Your task to perform on an android device: open app "Spotify: Music and Podcasts" (install if not already installed) and go to login screen Image 0: 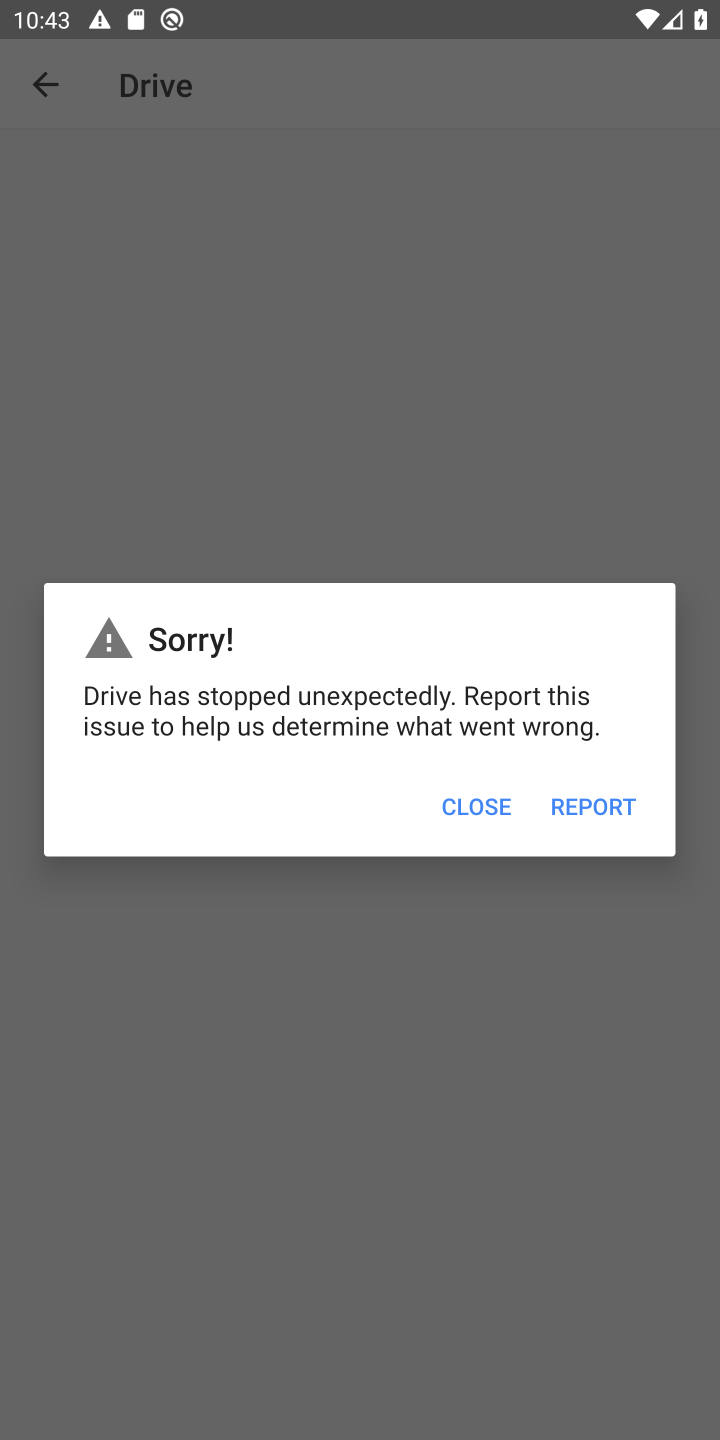
Step 0: press home button
Your task to perform on an android device: open app "Spotify: Music and Podcasts" (install if not already installed) and go to login screen Image 1: 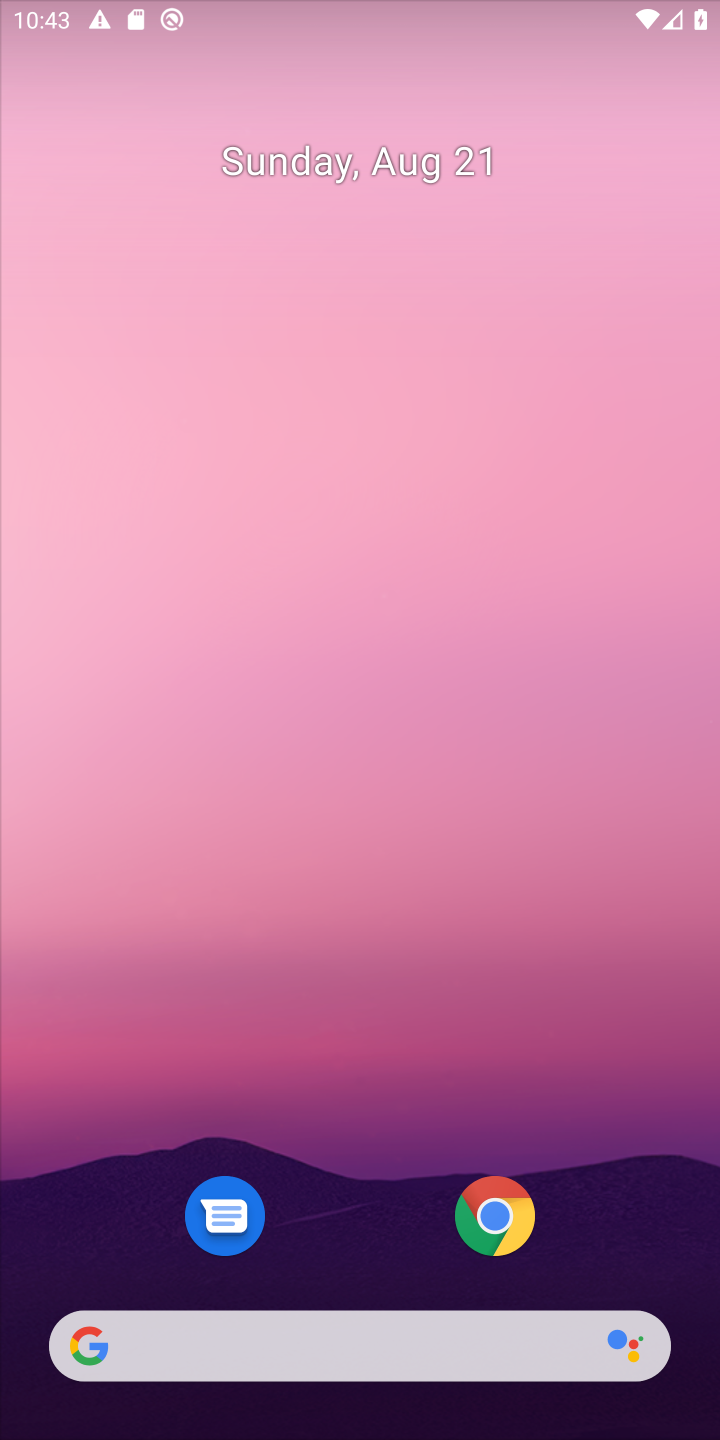
Step 1: drag from (170, 1350) to (718, 129)
Your task to perform on an android device: open app "Spotify: Music and Podcasts" (install if not already installed) and go to login screen Image 2: 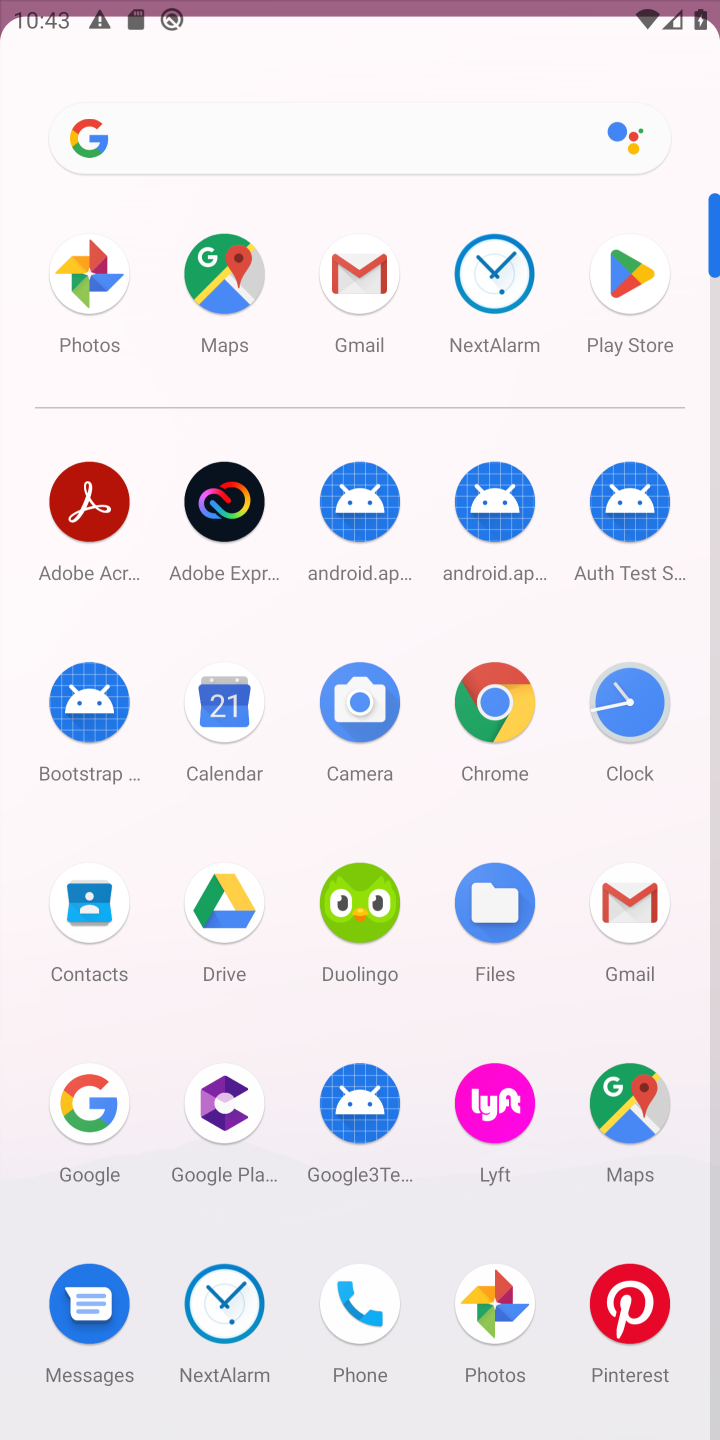
Step 2: click (612, 256)
Your task to perform on an android device: open app "Spotify: Music and Podcasts" (install if not already installed) and go to login screen Image 3: 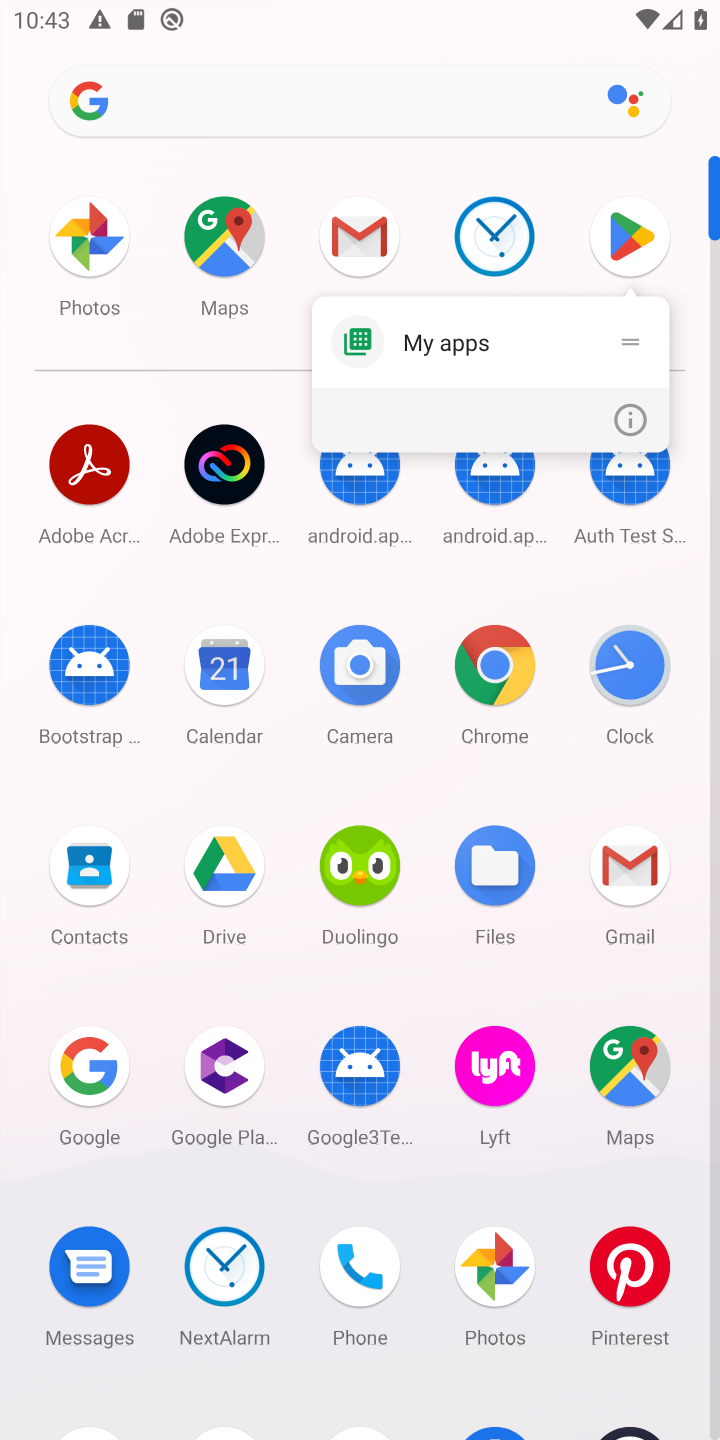
Step 3: click (632, 236)
Your task to perform on an android device: open app "Spotify: Music and Podcasts" (install if not already installed) and go to login screen Image 4: 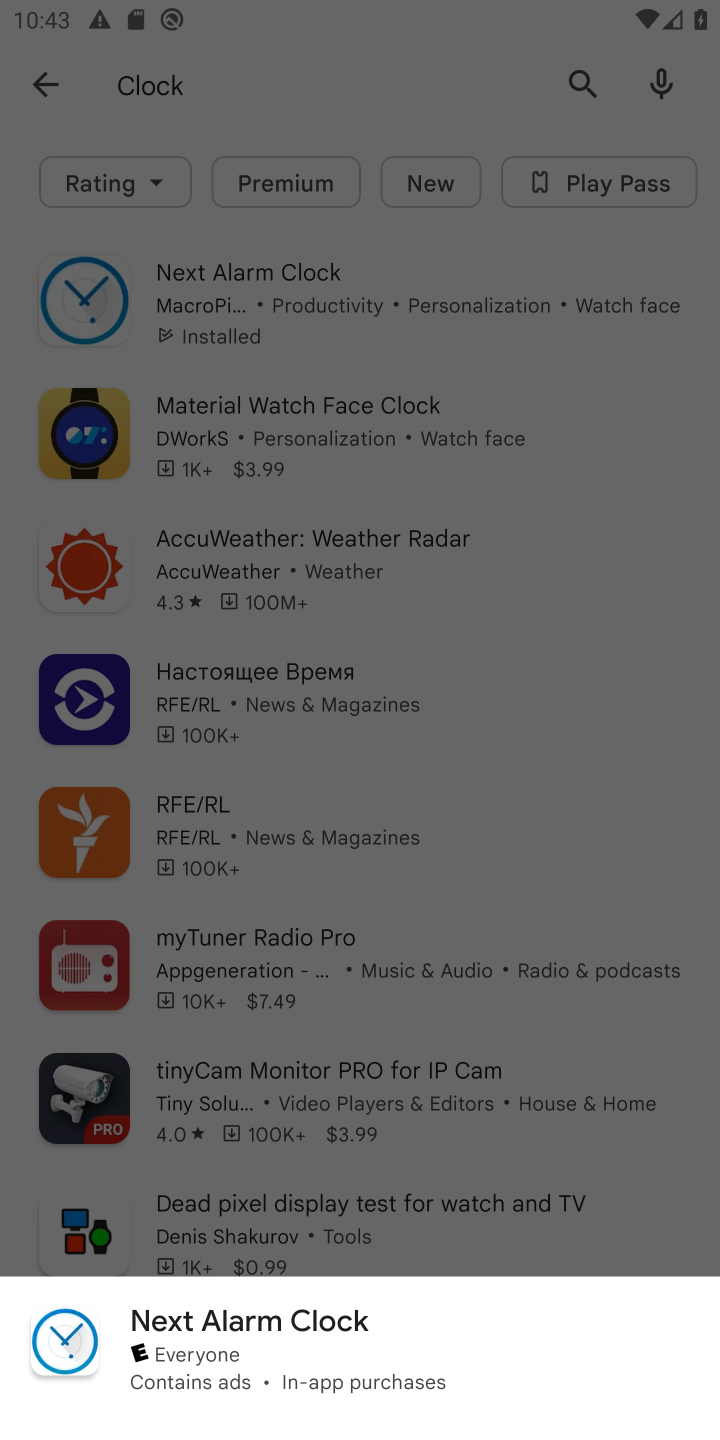
Step 4: press back button
Your task to perform on an android device: open app "Spotify: Music and Podcasts" (install if not already installed) and go to login screen Image 5: 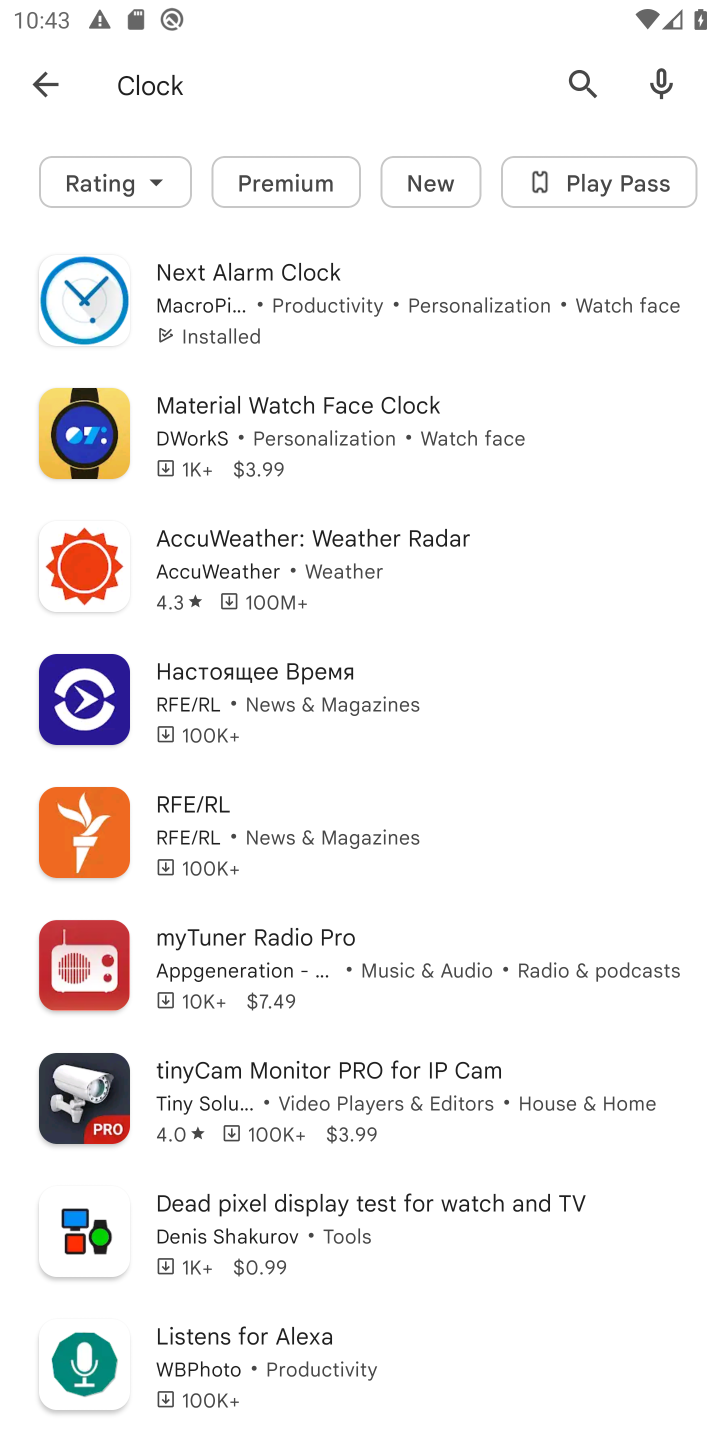
Step 5: click (44, 94)
Your task to perform on an android device: open app "Spotify: Music and Podcasts" (install if not already installed) and go to login screen Image 6: 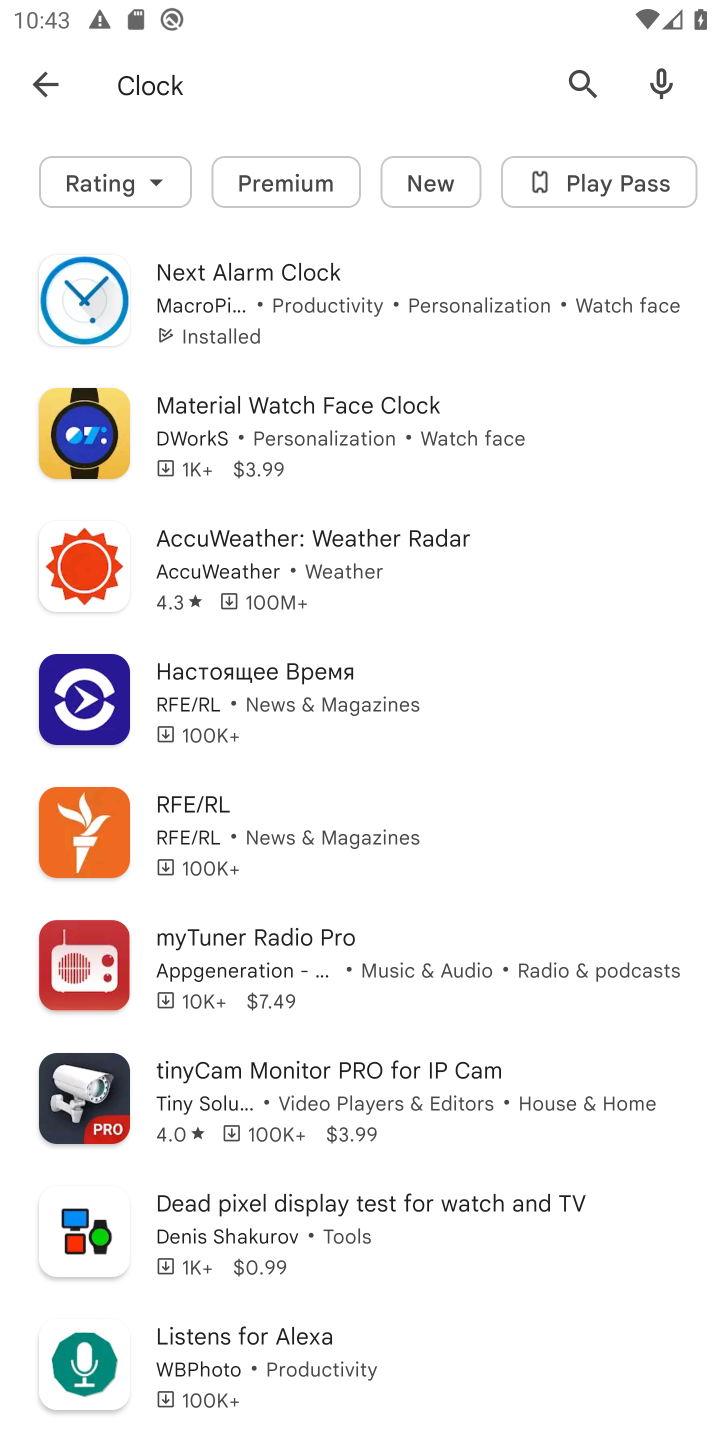
Step 6: click (46, 94)
Your task to perform on an android device: open app "Spotify: Music and Podcasts" (install if not already installed) and go to login screen Image 7: 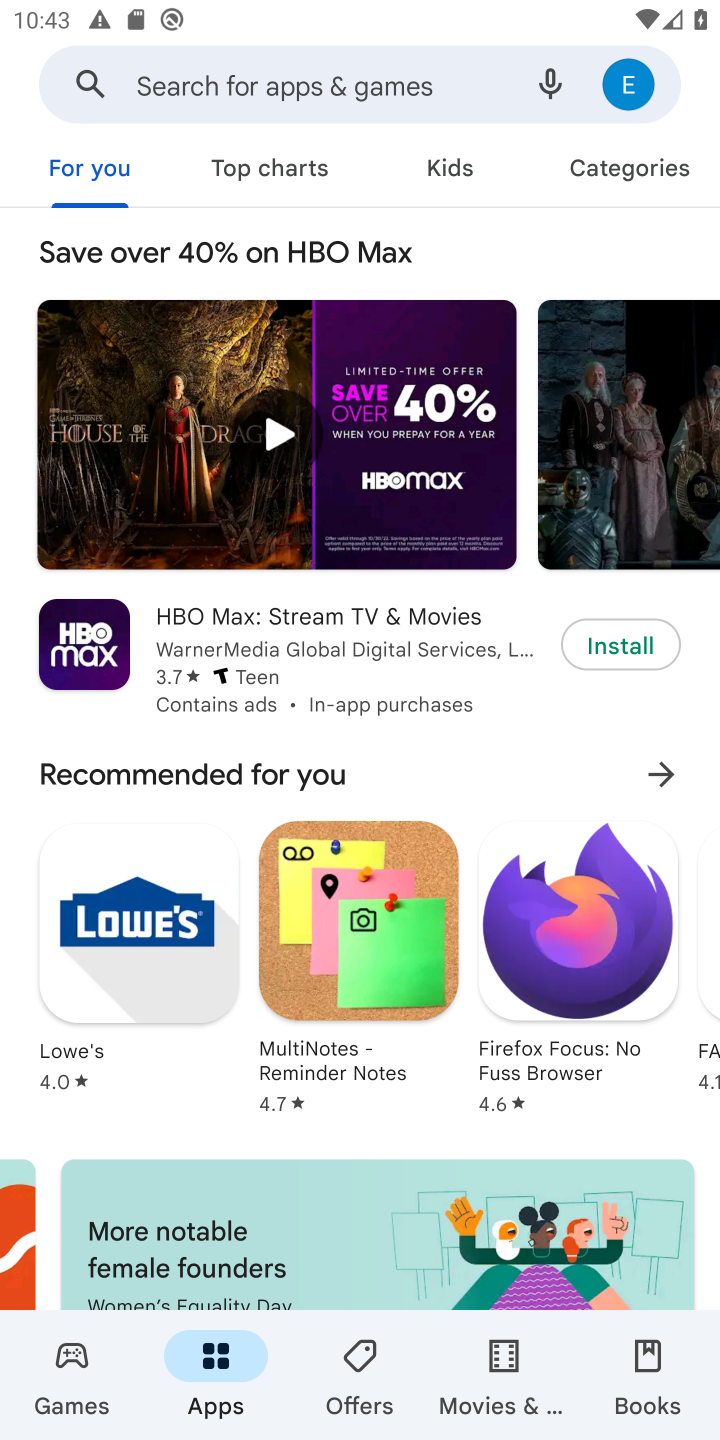
Step 7: click (323, 73)
Your task to perform on an android device: open app "Spotify: Music and Podcasts" (install if not already installed) and go to login screen Image 8: 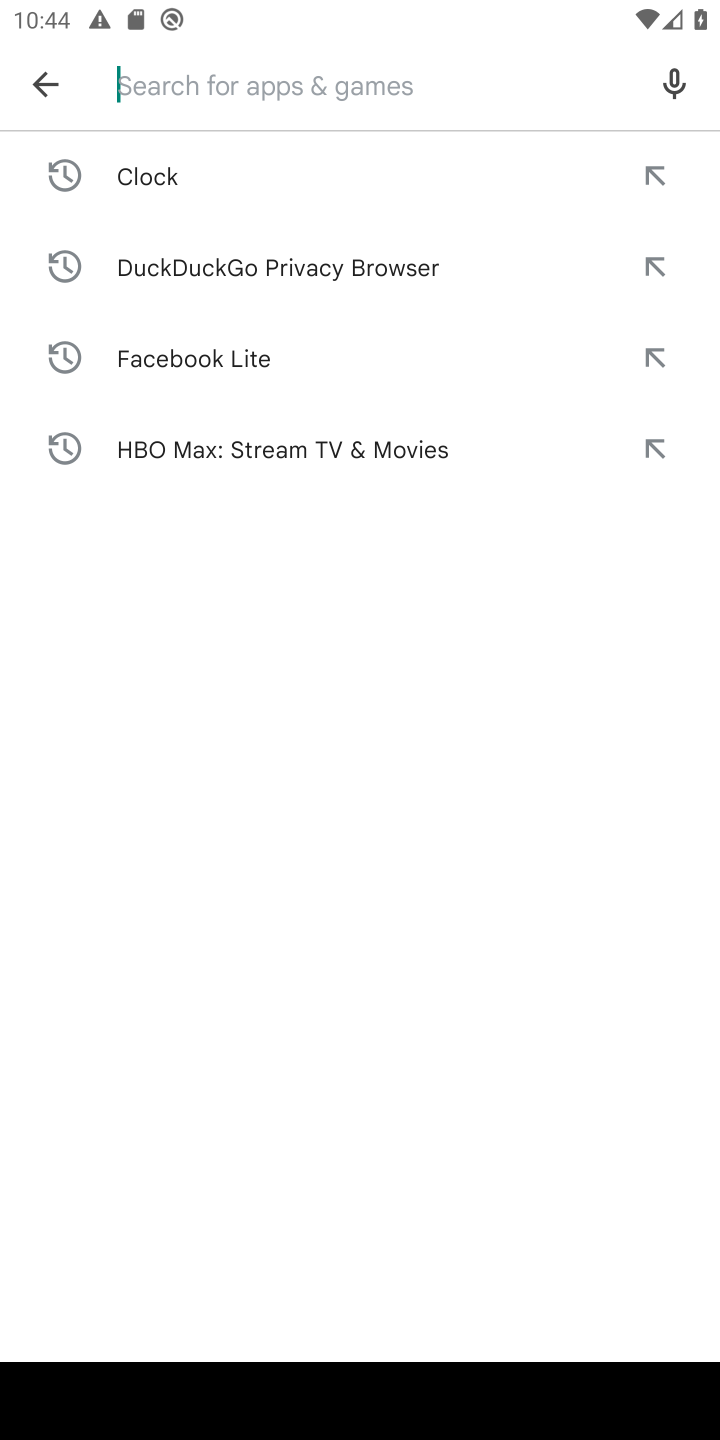
Step 8: type "potify: Music and Podcasts"
Your task to perform on an android device: open app "Spotify: Music and Podcasts" (install if not already installed) and go to login screen Image 9: 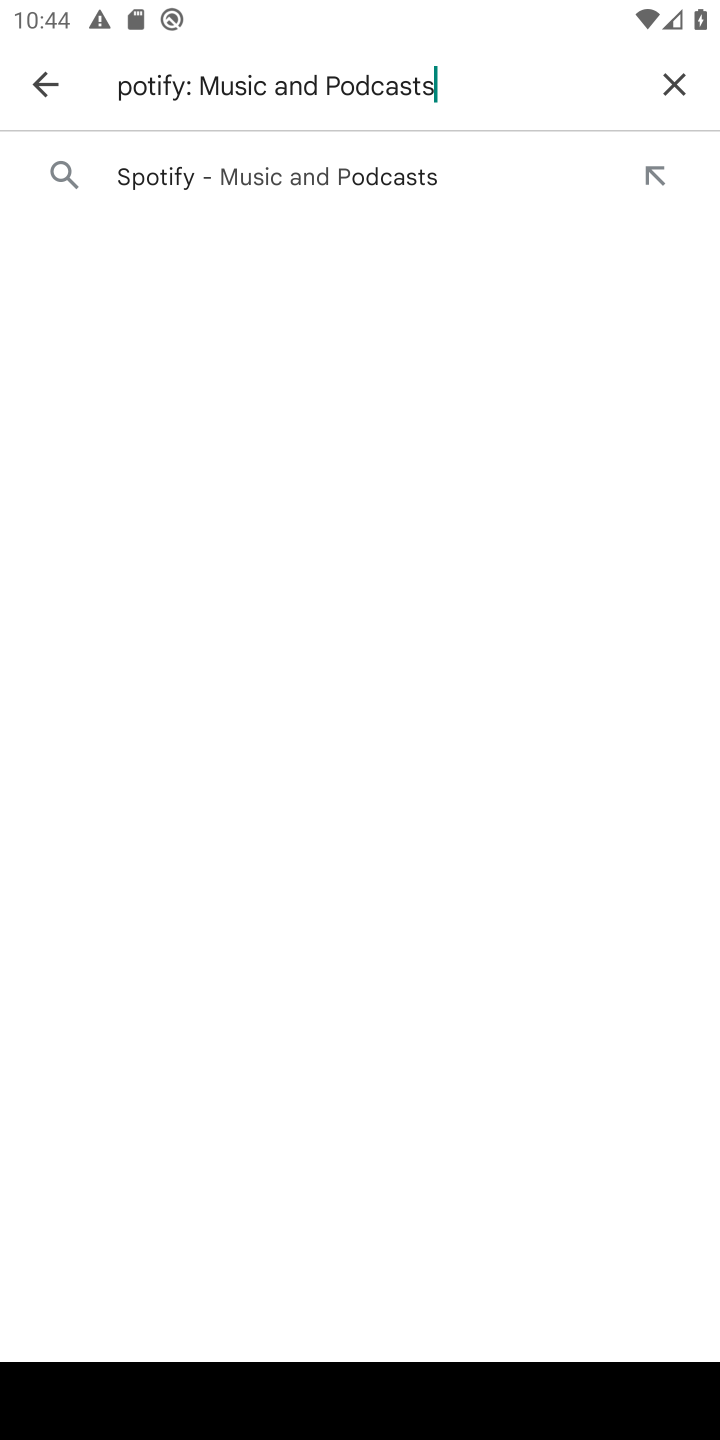
Step 9: press enter
Your task to perform on an android device: open app "Spotify: Music and Podcasts" (install if not already installed) and go to login screen Image 10: 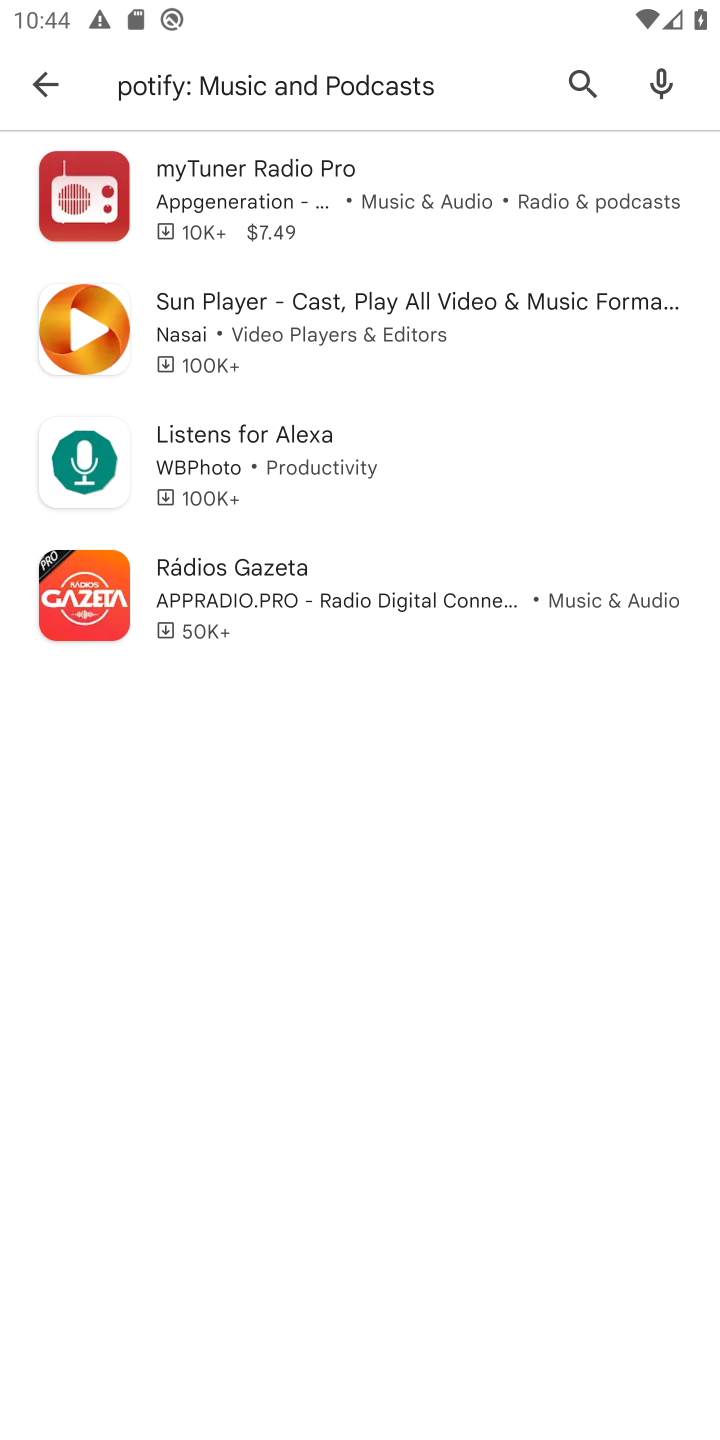
Step 10: press back button
Your task to perform on an android device: open app "Spotify: Music and Podcasts" (install if not already installed) and go to login screen Image 11: 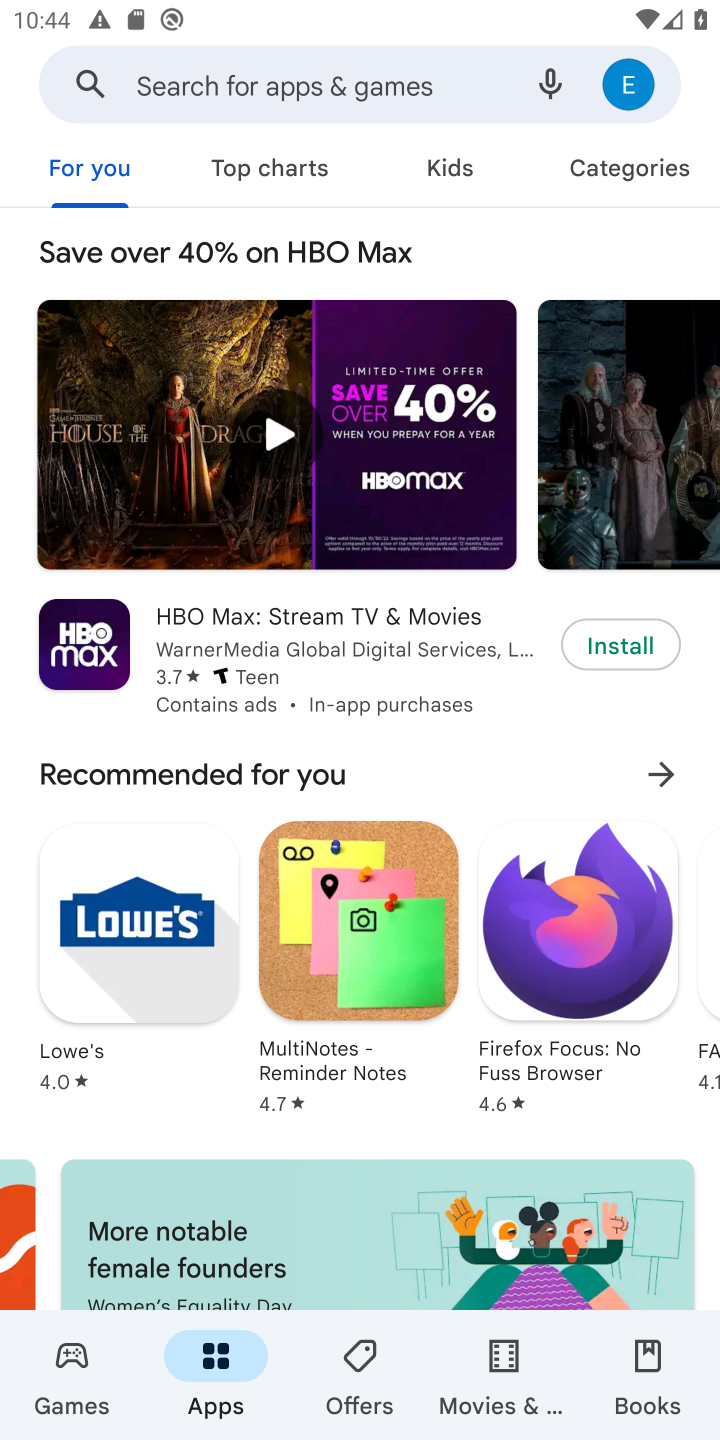
Step 11: click (289, 66)
Your task to perform on an android device: open app "Spotify: Music and Podcasts" (install if not already installed) and go to login screen Image 12: 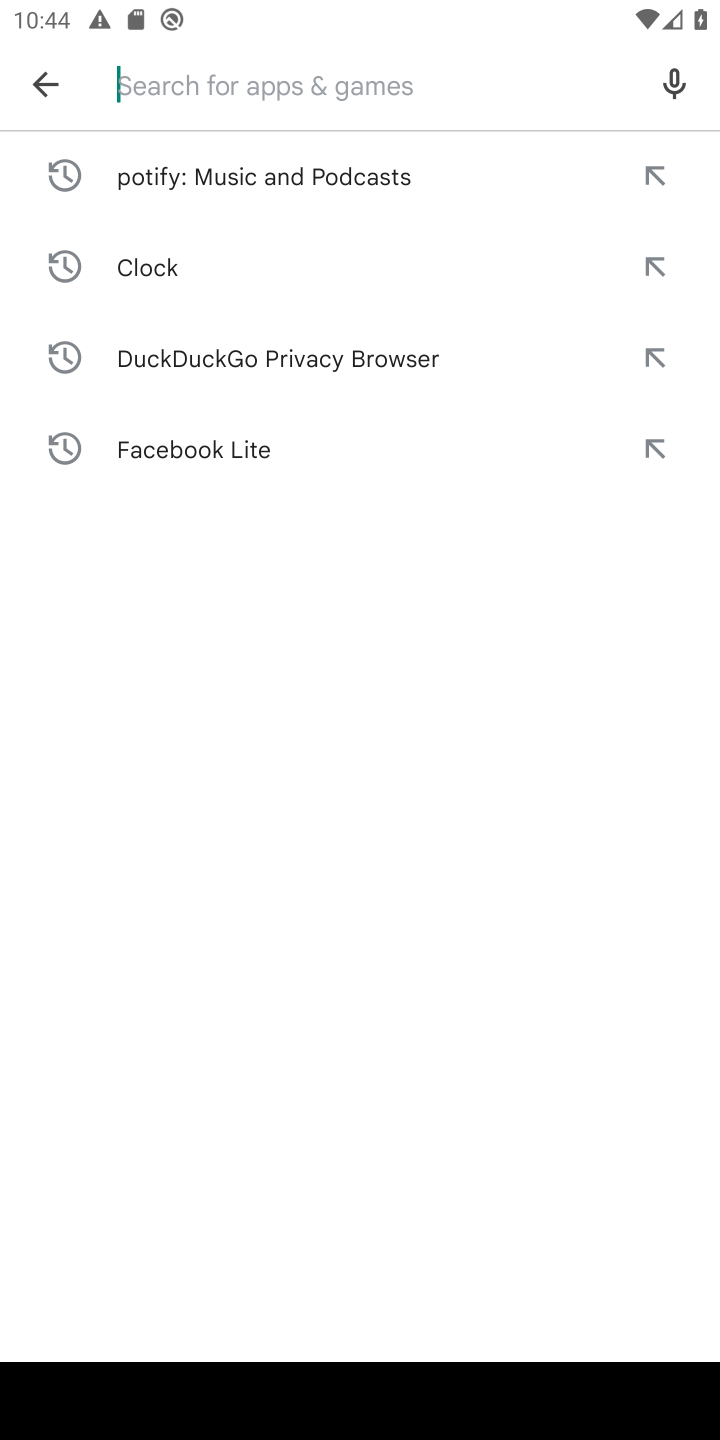
Step 12: type "Spotify: Music and Podcasts"
Your task to perform on an android device: open app "Spotify: Music and Podcasts" (install if not already installed) and go to login screen Image 13: 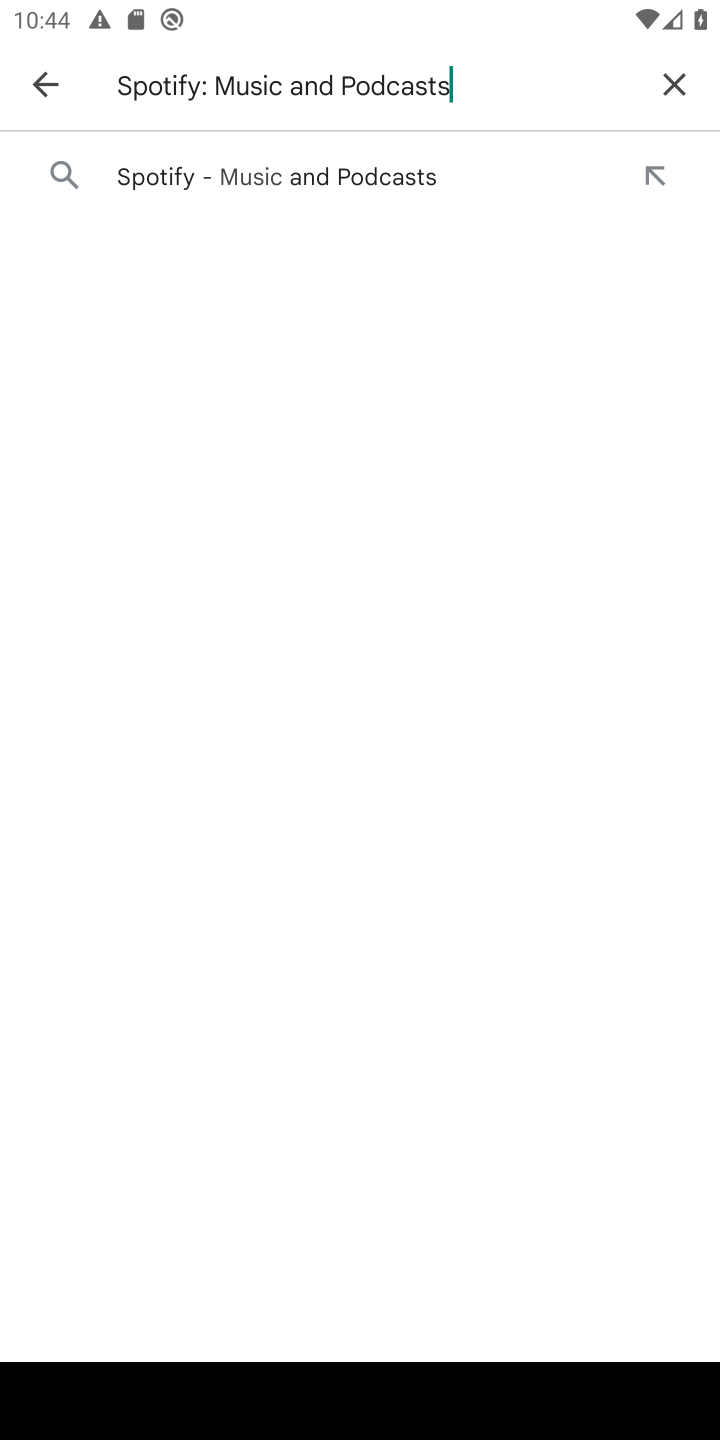
Step 13: press enter
Your task to perform on an android device: open app "Spotify: Music and Podcasts" (install if not already installed) and go to login screen Image 14: 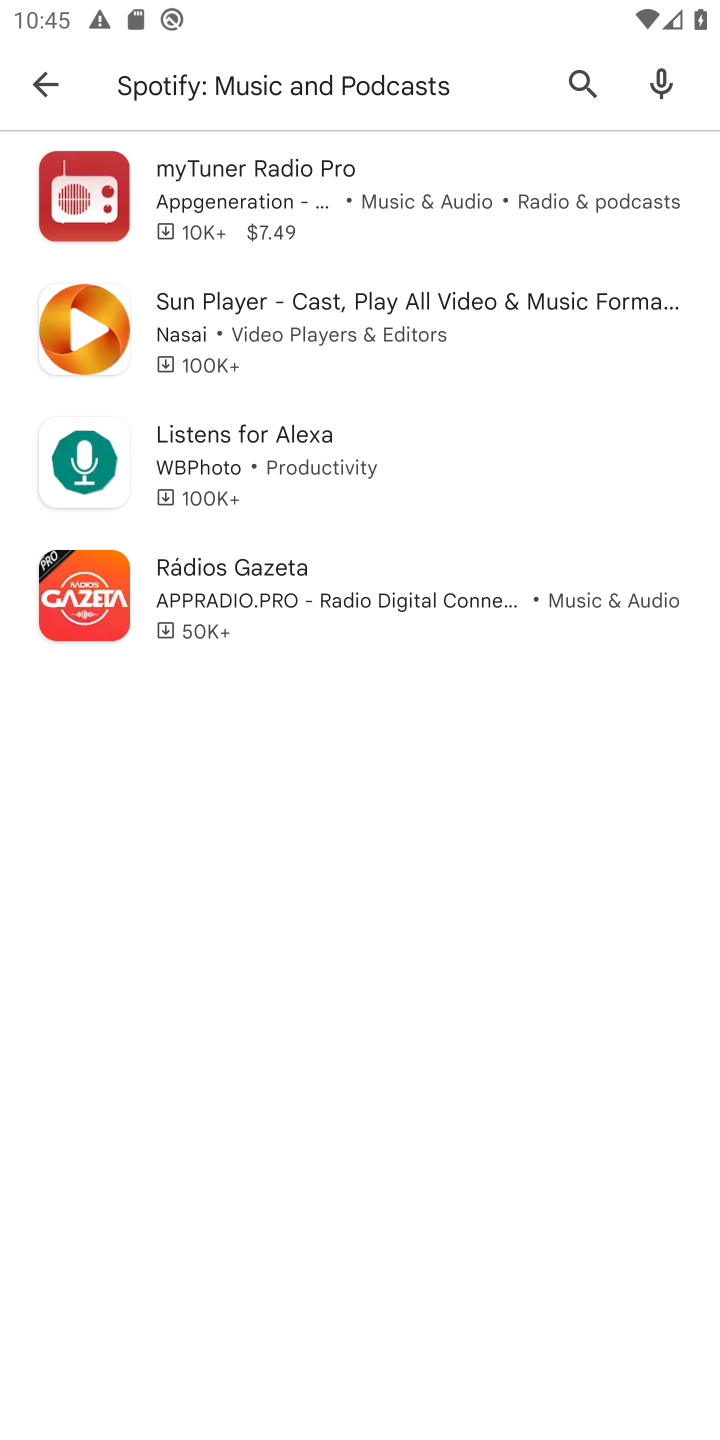
Step 14: task complete